Your task to perform on an android device: change the clock display to digital Image 0: 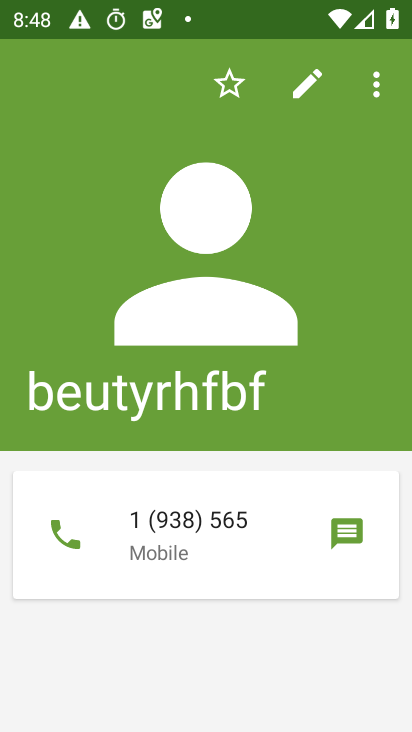
Step 0: press home button
Your task to perform on an android device: change the clock display to digital Image 1: 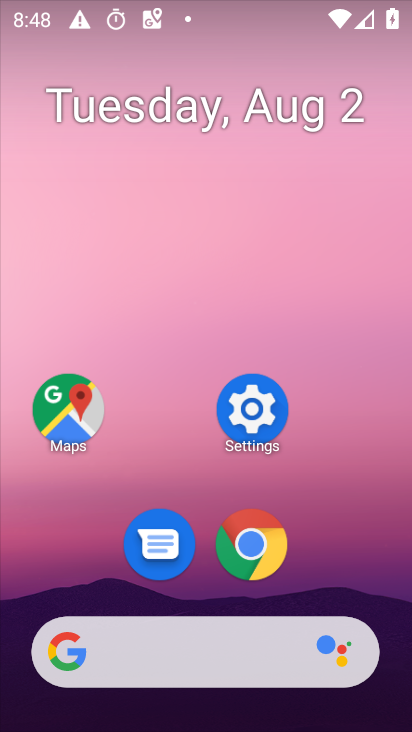
Step 1: drag from (145, 660) to (323, 117)
Your task to perform on an android device: change the clock display to digital Image 2: 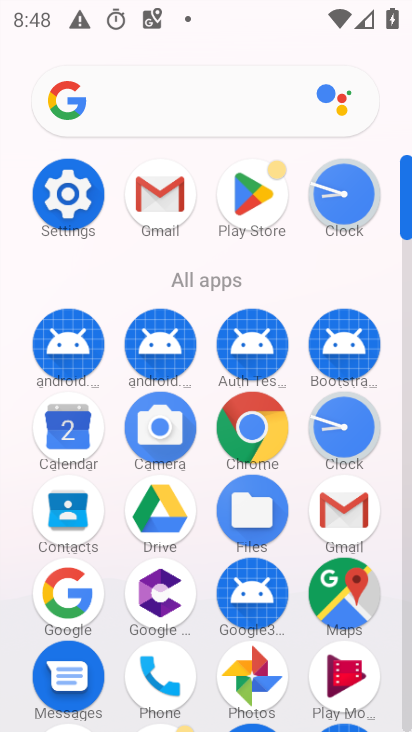
Step 2: click (334, 197)
Your task to perform on an android device: change the clock display to digital Image 3: 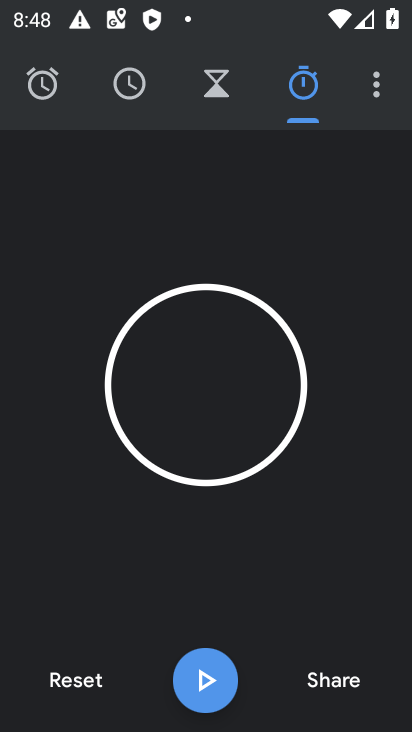
Step 3: click (371, 91)
Your task to perform on an android device: change the clock display to digital Image 4: 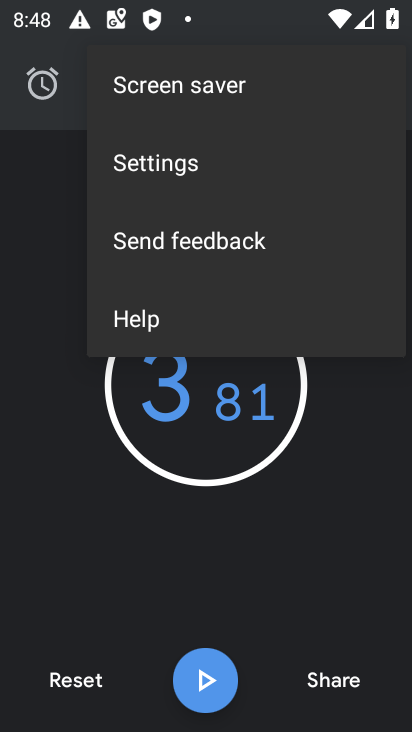
Step 4: click (173, 161)
Your task to perform on an android device: change the clock display to digital Image 5: 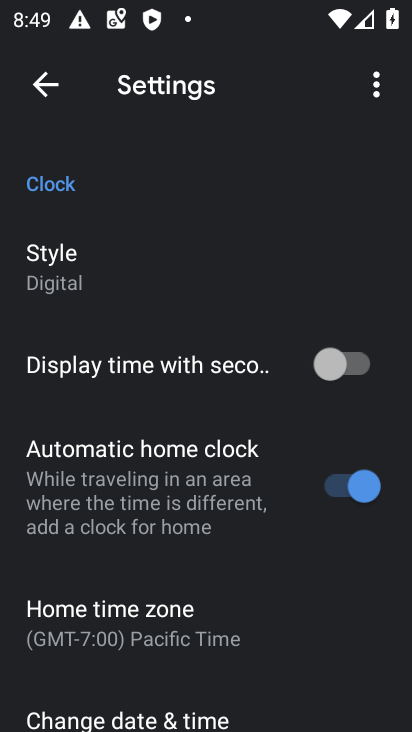
Step 5: task complete